Your task to perform on an android device: open the mobile data screen to see how much data has been used Image 0: 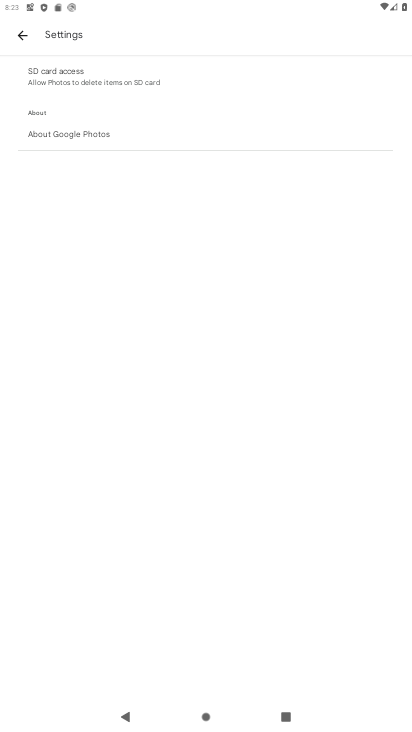
Step 0: press home button
Your task to perform on an android device: open the mobile data screen to see how much data has been used Image 1: 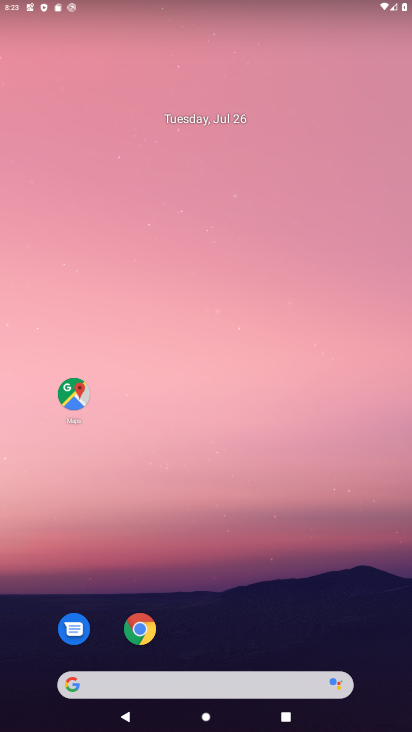
Step 1: drag from (220, 620) to (241, 322)
Your task to perform on an android device: open the mobile data screen to see how much data has been used Image 2: 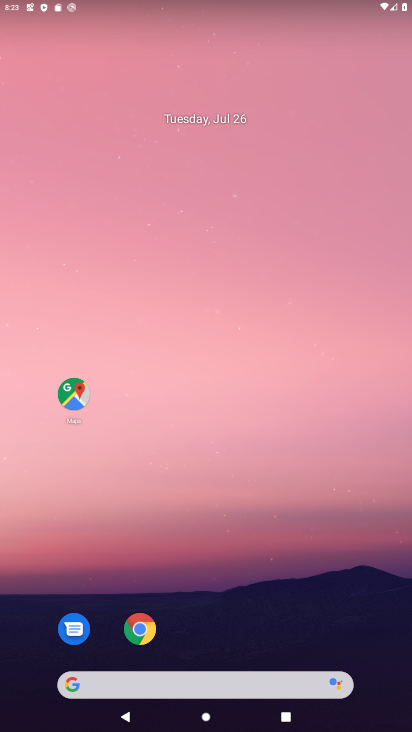
Step 2: drag from (257, 618) to (223, 102)
Your task to perform on an android device: open the mobile data screen to see how much data has been used Image 3: 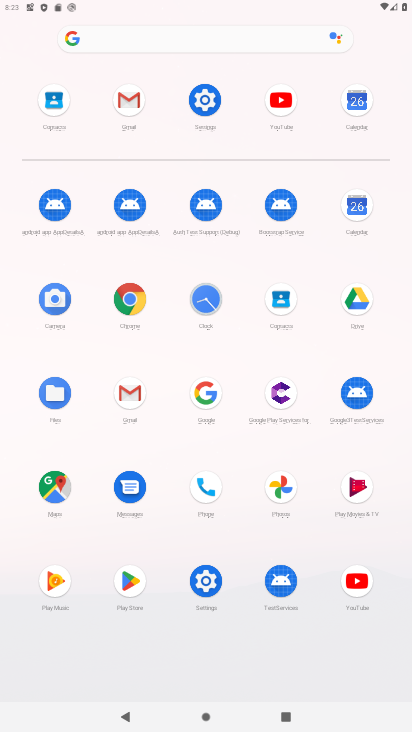
Step 3: click (200, 96)
Your task to perform on an android device: open the mobile data screen to see how much data has been used Image 4: 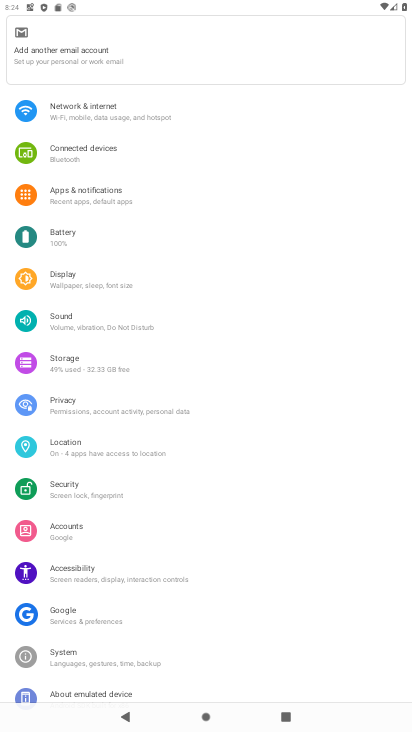
Step 4: click (97, 107)
Your task to perform on an android device: open the mobile data screen to see how much data has been used Image 5: 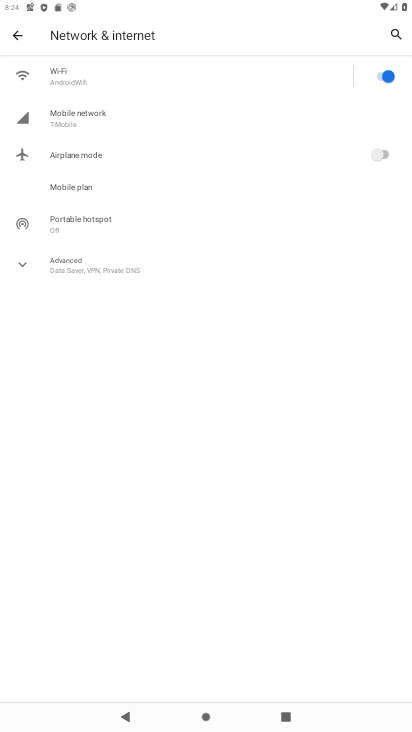
Step 5: click (98, 118)
Your task to perform on an android device: open the mobile data screen to see how much data has been used Image 6: 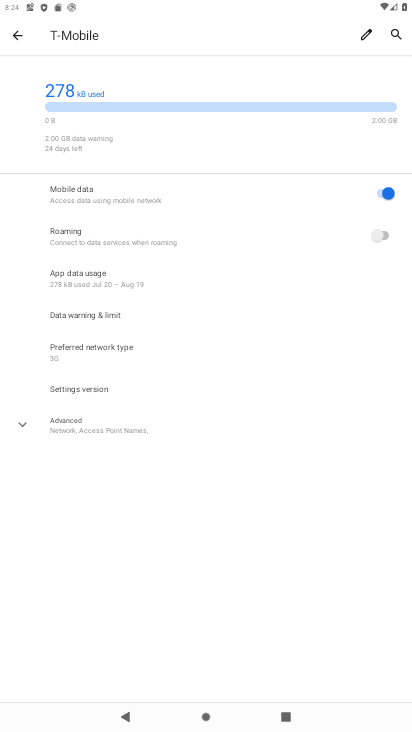
Step 6: click (113, 280)
Your task to perform on an android device: open the mobile data screen to see how much data has been used Image 7: 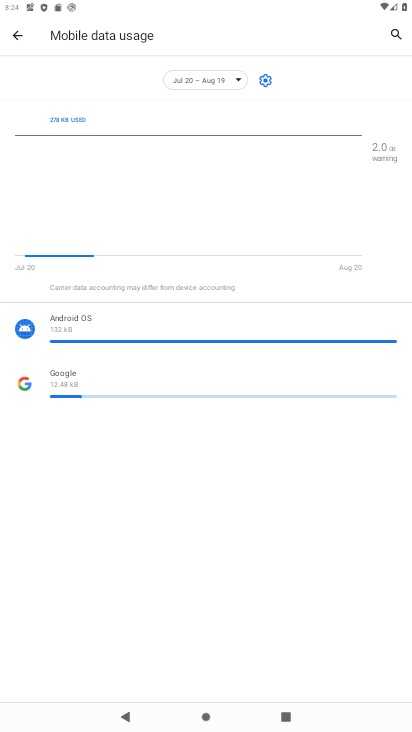
Step 7: task complete